Your task to perform on an android device: empty trash in the gmail app Image 0: 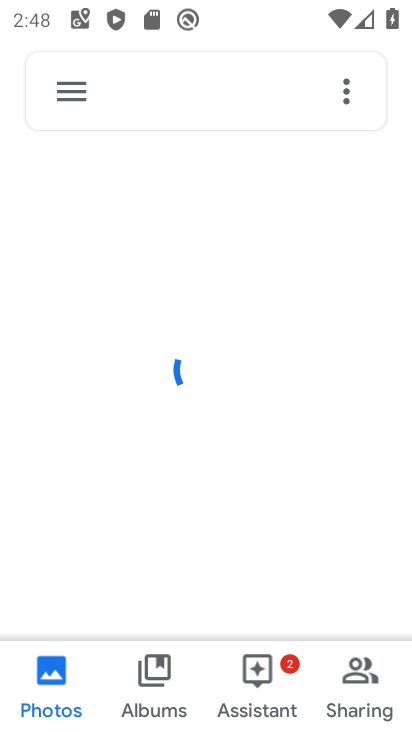
Step 0: press home button
Your task to perform on an android device: empty trash in the gmail app Image 1: 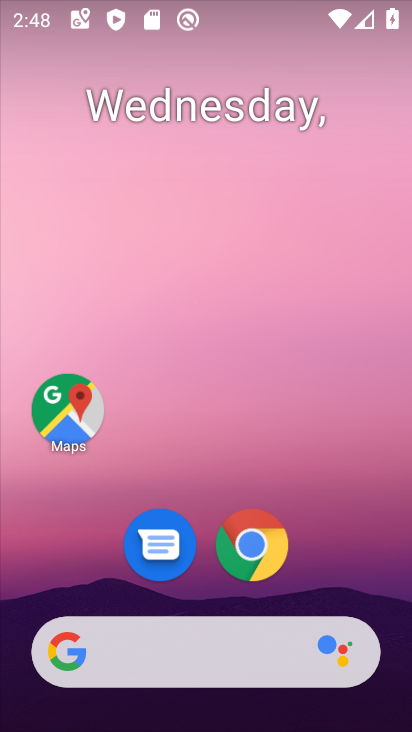
Step 1: drag from (137, 658) to (250, 143)
Your task to perform on an android device: empty trash in the gmail app Image 2: 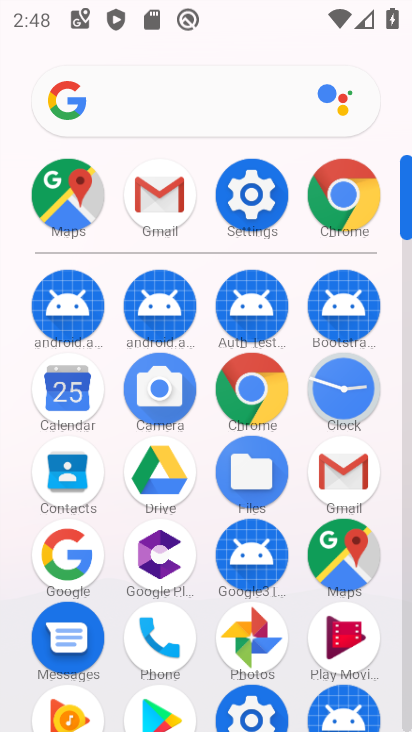
Step 2: click (159, 263)
Your task to perform on an android device: empty trash in the gmail app Image 3: 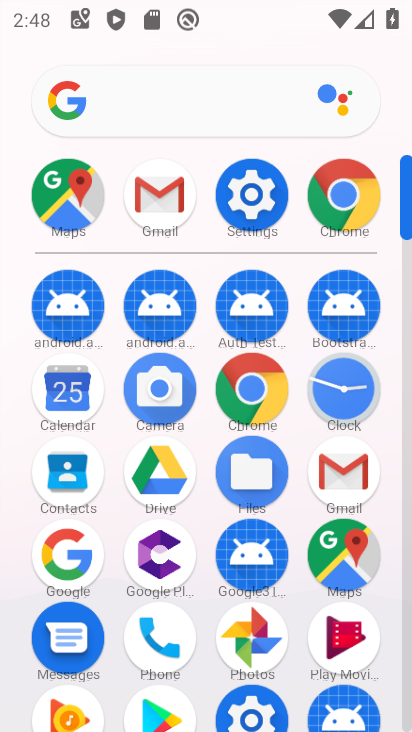
Step 3: click (171, 209)
Your task to perform on an android device: empty trash in the gmail app Image 4: 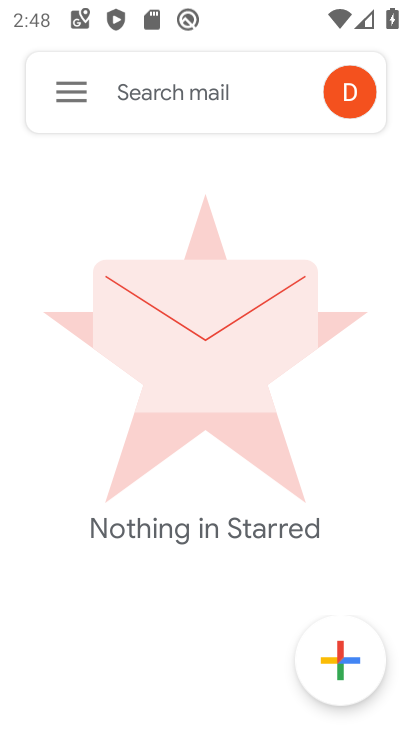
Step 4: click (54, 91)
Your task to perform on an android device: empty trash in the gmail app Image 5: 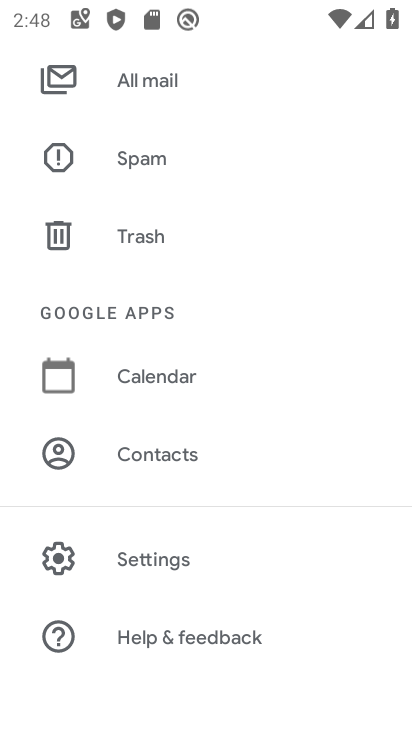
Step 5: click (155, 243)
Your task to perform on an android device: empty trash in the gmail app Image 6: 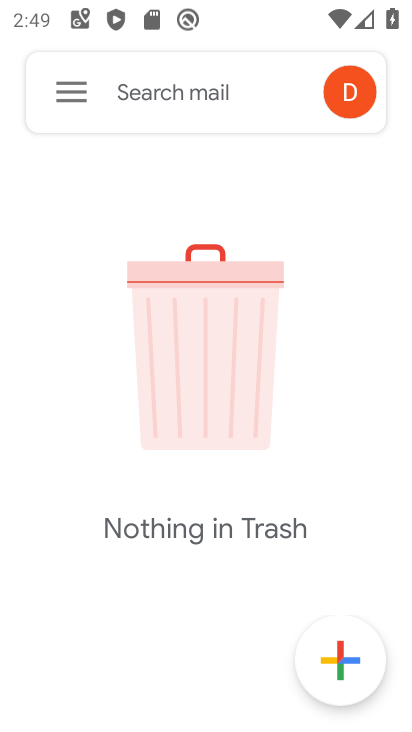
Step 6: task complete